Your task to perform on an android device: Toggle the flashlight Image 0: 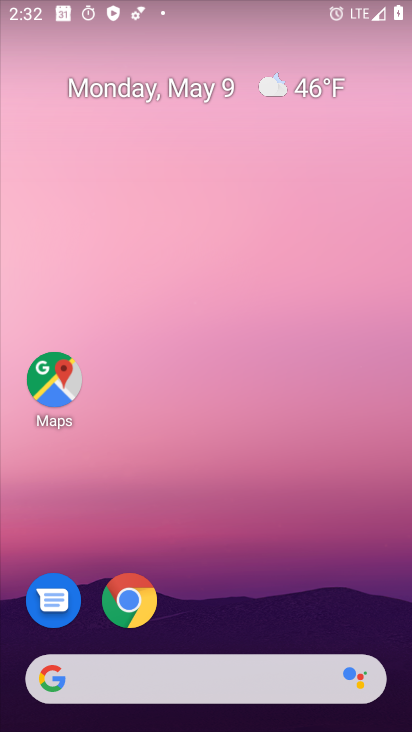
Step 0: drag from (188, 696) to (236, 201)
Your task to perform on an android device: Toggle the flashlight Image 1: 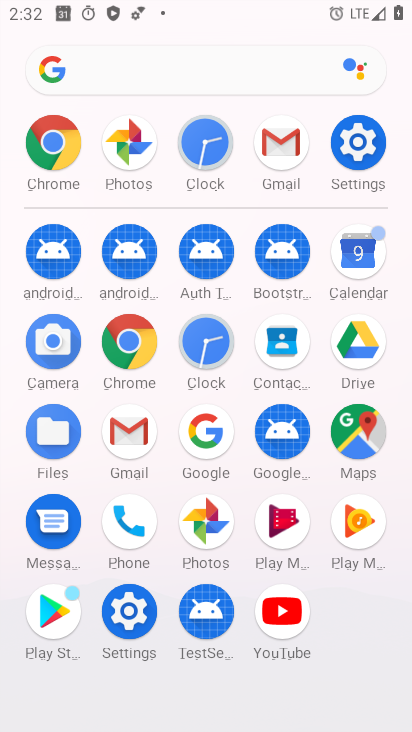
Step 1: task complete